Your task to perform on an android device: turn off smart reply in the gmail app Image 0: 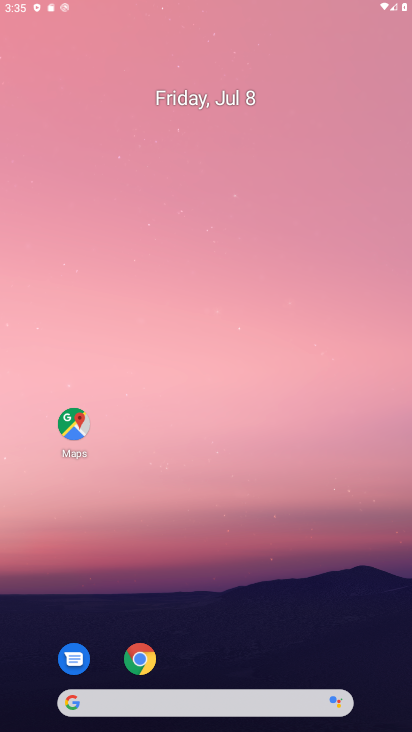
Step 0: click (216, 147)
Your task to perform on an android device: turn off smart reply in the gmail app Image 1: 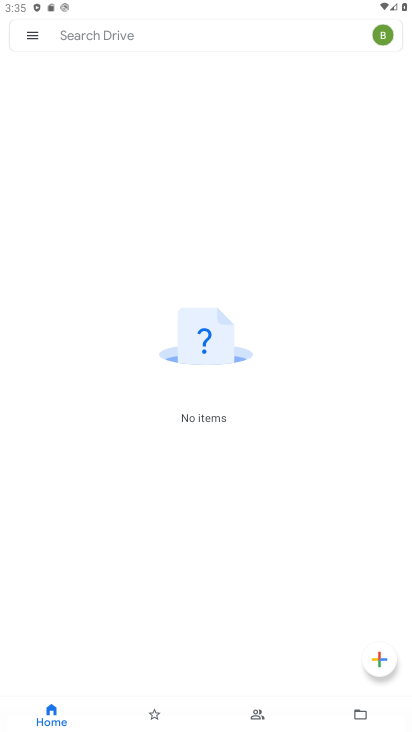
Step 1: press home button
Your task to perform on an android device: turn off smart reply in the gmail app Image 2: 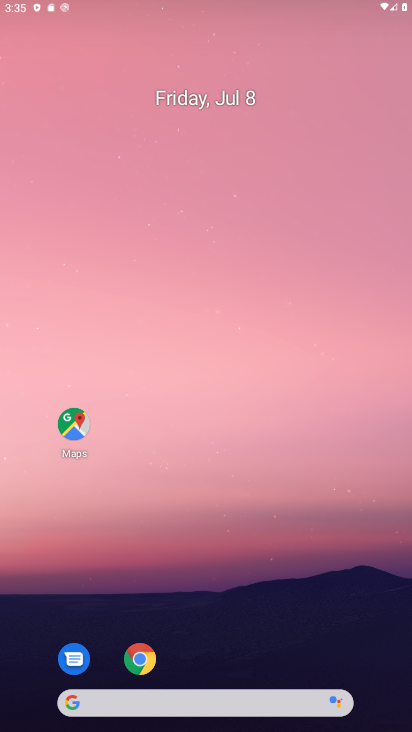
Step 2: drag from (259, 558) to (237, 30)
Your task to perform on an android device: turn off smart reply in the gmail app Image 3: 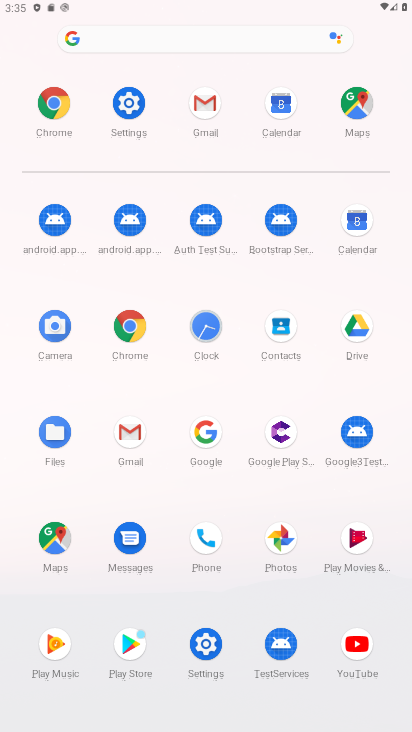
Step 3: click (137, 433)
Your task to perform on an android device: turn off smart reply in the gmail app Image 4: 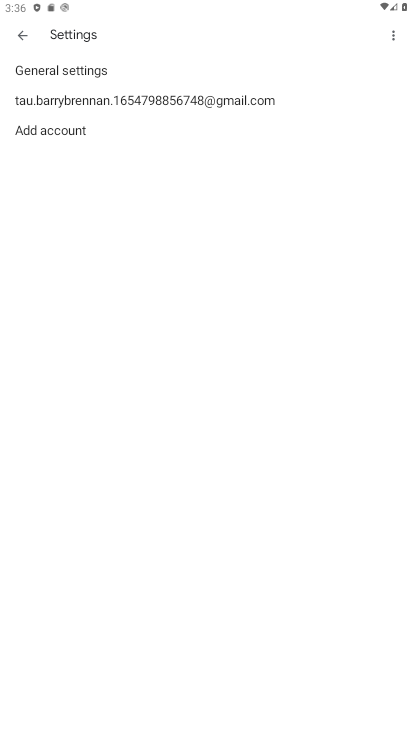
Step 4: click (167, 107)
Your task to perform on an android device: turn off smart reply in the gmail app Image 5: 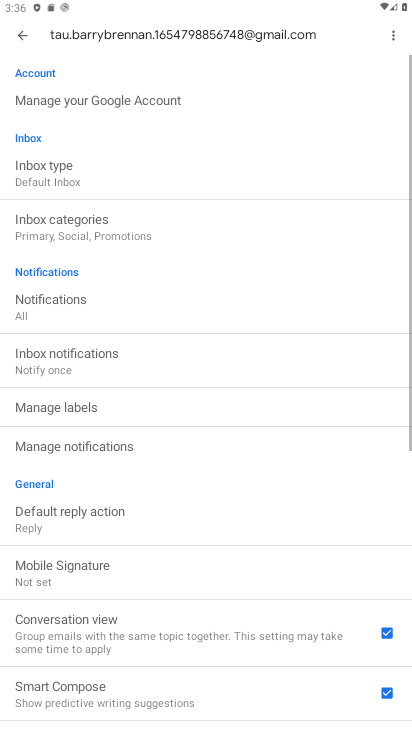
Step 5: drag from (276, 571) to (256, 234)
Your task to perform on an android device: turn off smart reply in the gmail app Image 6: 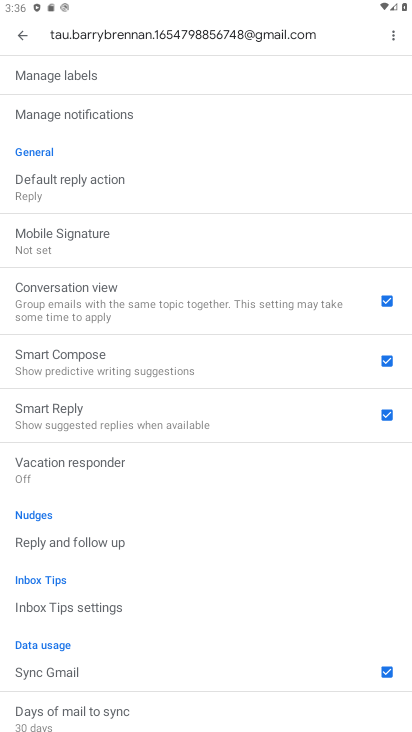
Step 6: click (385, 411)
Your task to perform on an android device: turn off smart reply in the gmail app Image 7: 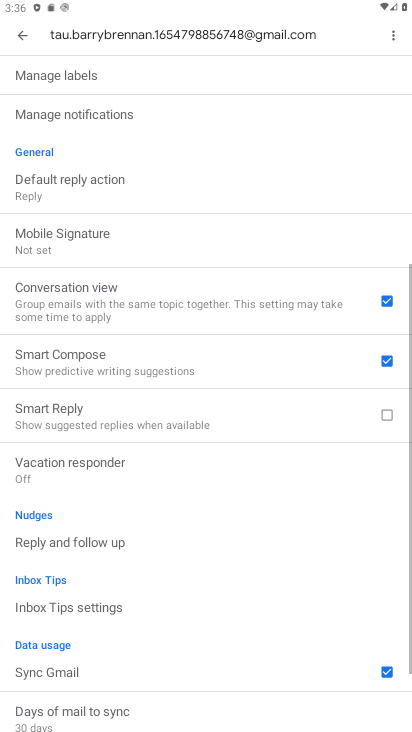
Step 7: task complete